Your task to perform on an android device: uninstall "Pinterest" Image 0: 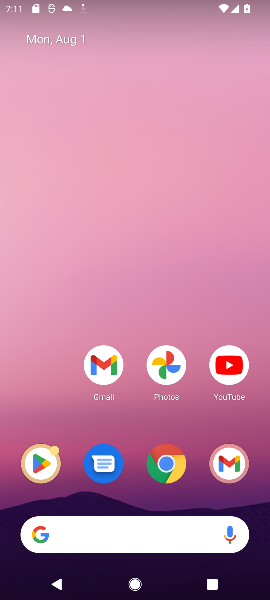
Step 0: click (34, 457)
Your task to perform on an android device: uninstall "Pinterest" Image 1: 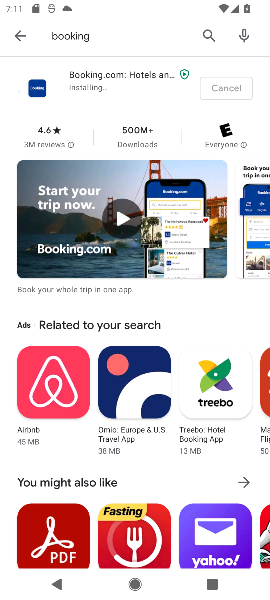
Step 1: click (195, 34)
Your task to perform on an android device: uninstall "Pinterest" Image 2: 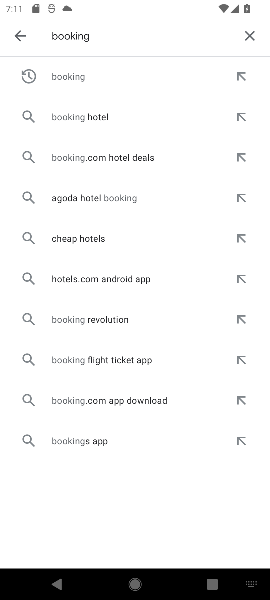
Step 2: click (250, 42)
Your task to perform on an android device: uninstall "Pinterest" Image 3: 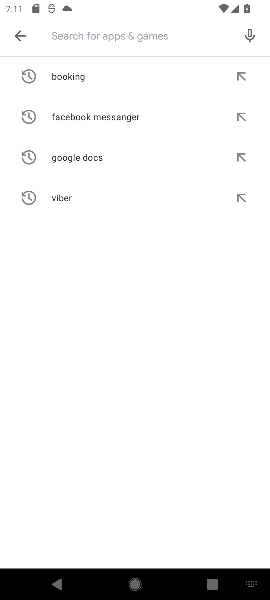
Step 3: type "pintrest"
Your task to perform on an android device: uninstall "Pinterest" Image 4: 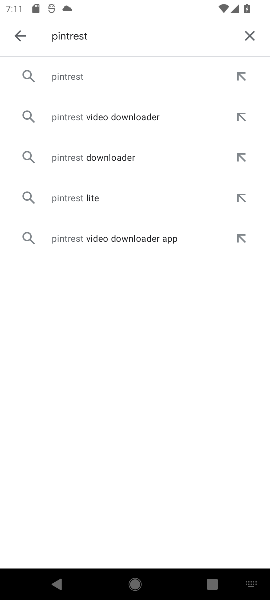
Step 4: click (93, 81)
Your task to perform on an android device: uninstall "Pinterest" Image 5: 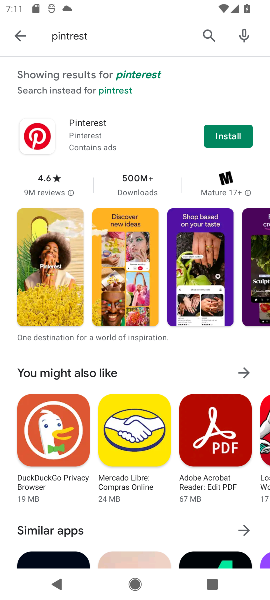
Step 5: click (222, 126)
Your task to perform on an android device: uninstall "Pinterest" Image 6: 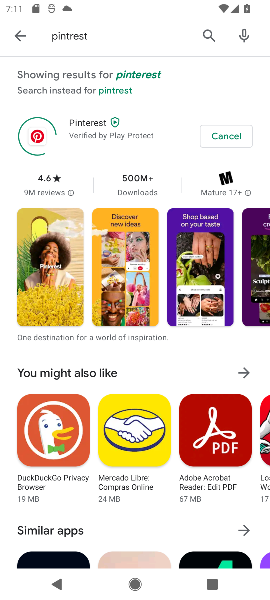
Step 6: task complete